Your task to perform on an android device: Add "dell xps" to the cart on bestbuy Image 0: 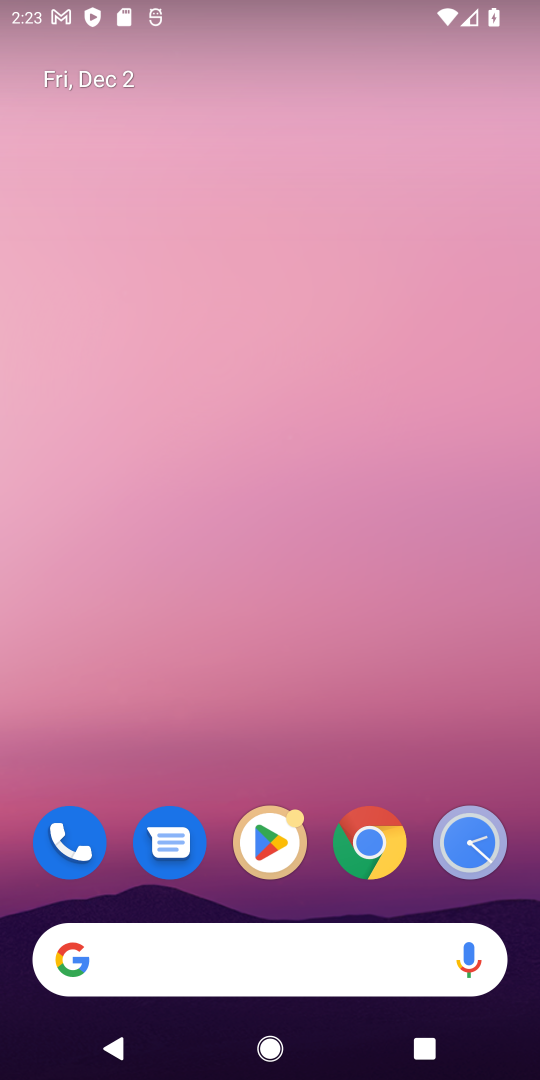
Step 0: task complete